Your task to perform on an android device: Go to battery settings Image 0: 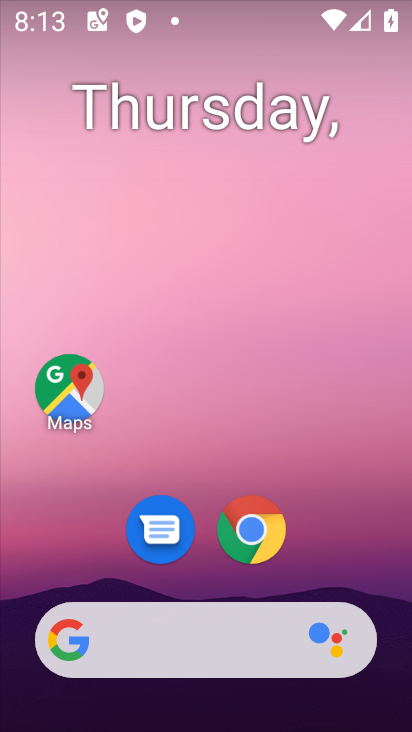
Step 0: drag from (210, 721) to (207, 57)
Your task to perform on an android device: Go to battery settings Image 1: 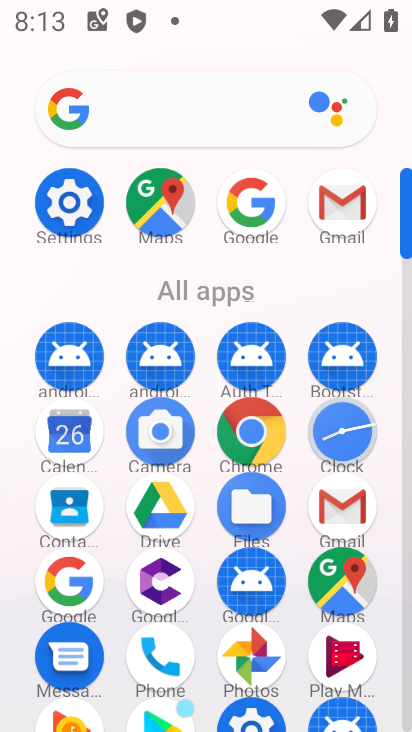
Step 1: click (69, 203)
Your task to perform on an android device: Go to battery settings Image 2: 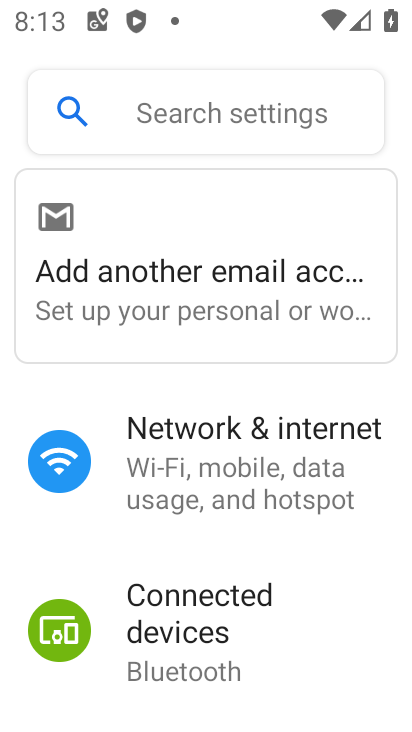
Step 2: drag from (249, 696) to (259, 310)
Your task to perform on an android device: Go to battery settings Image 3: 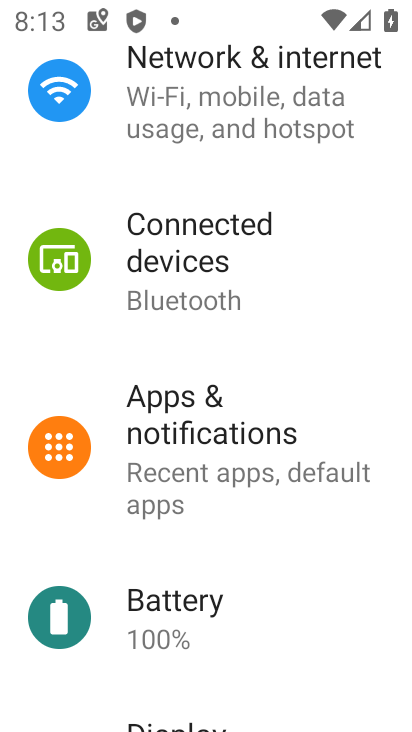
Step 3: click (166, 620)
Your task to perform on an android device: Go to battery settings Image 4: 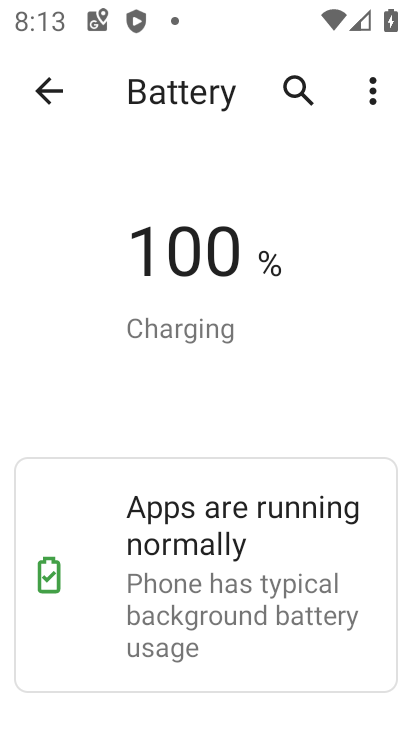
Step 4: click (370, 97)
Your task to perform on an android device: Go to battery settings Image 5: 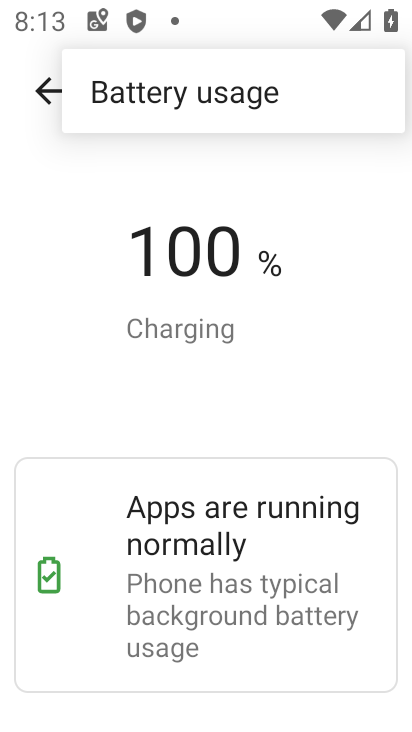
Step 5: click (163, 86)
Your task to perform on an android device: Go to battery settings Image 6: 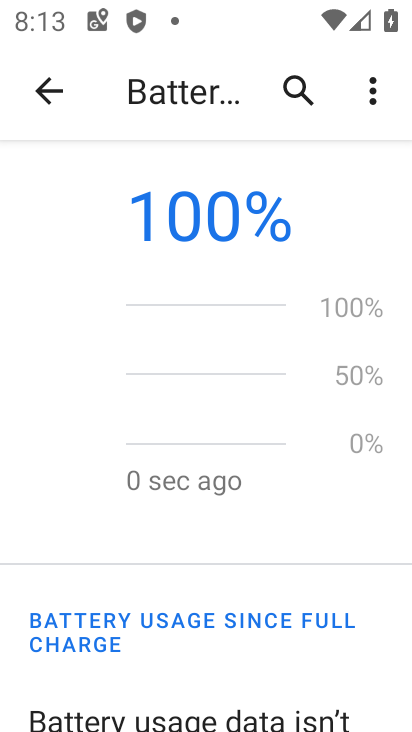
Step 6: task complete